Your task to perform on an android device: open wifi settings Image 0: 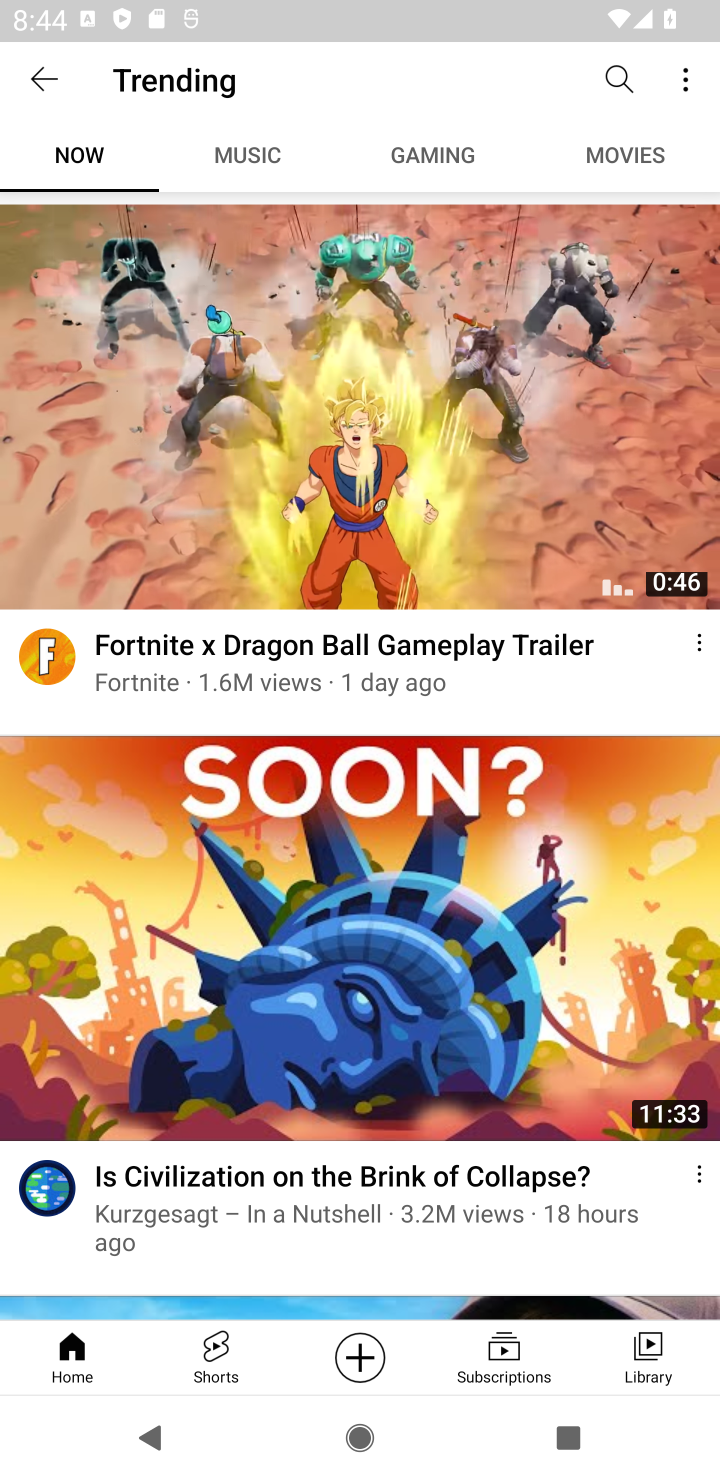
Step 0: press home button
Your task to perform on an android device: open wifi settings Image 1: 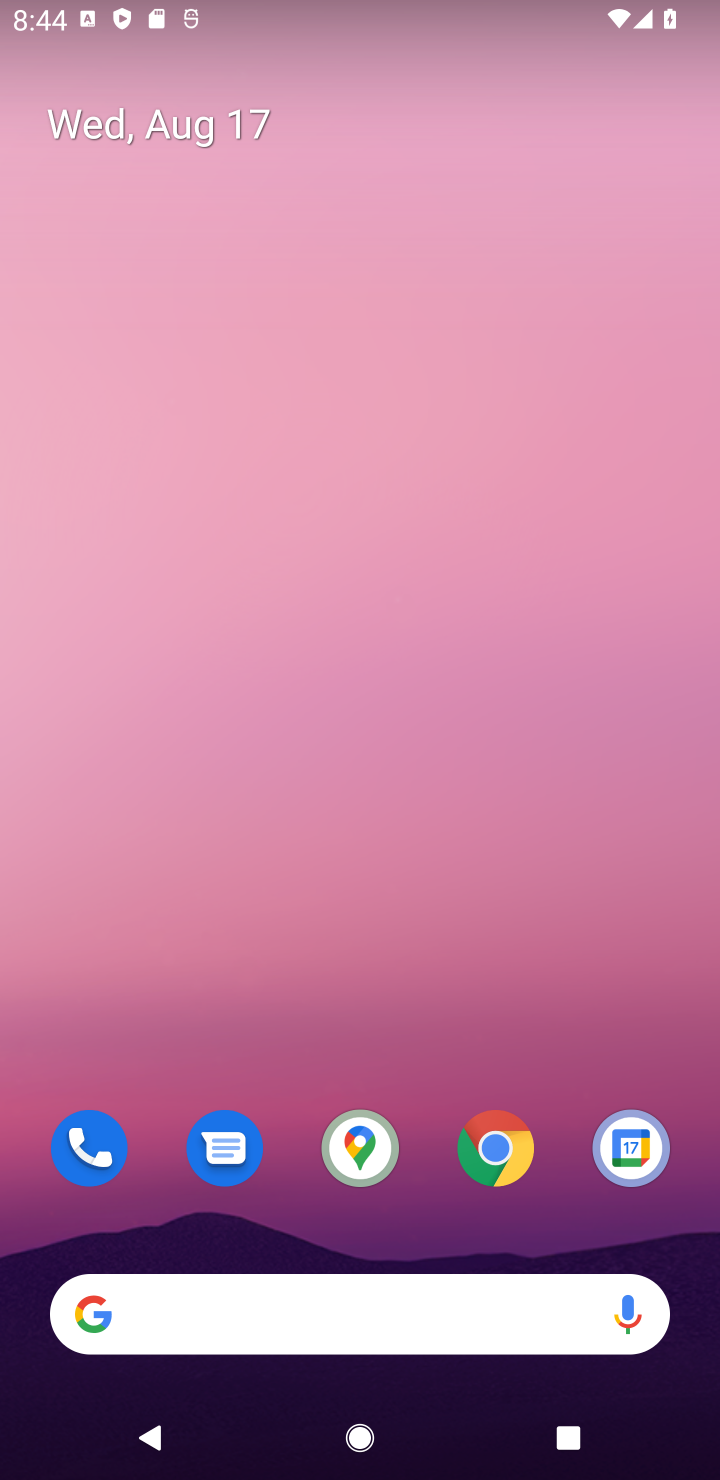
Step 1: drag from (555, 1228) to (475, 77)
Your task to perform on an android device: open wifi settings Image 2: 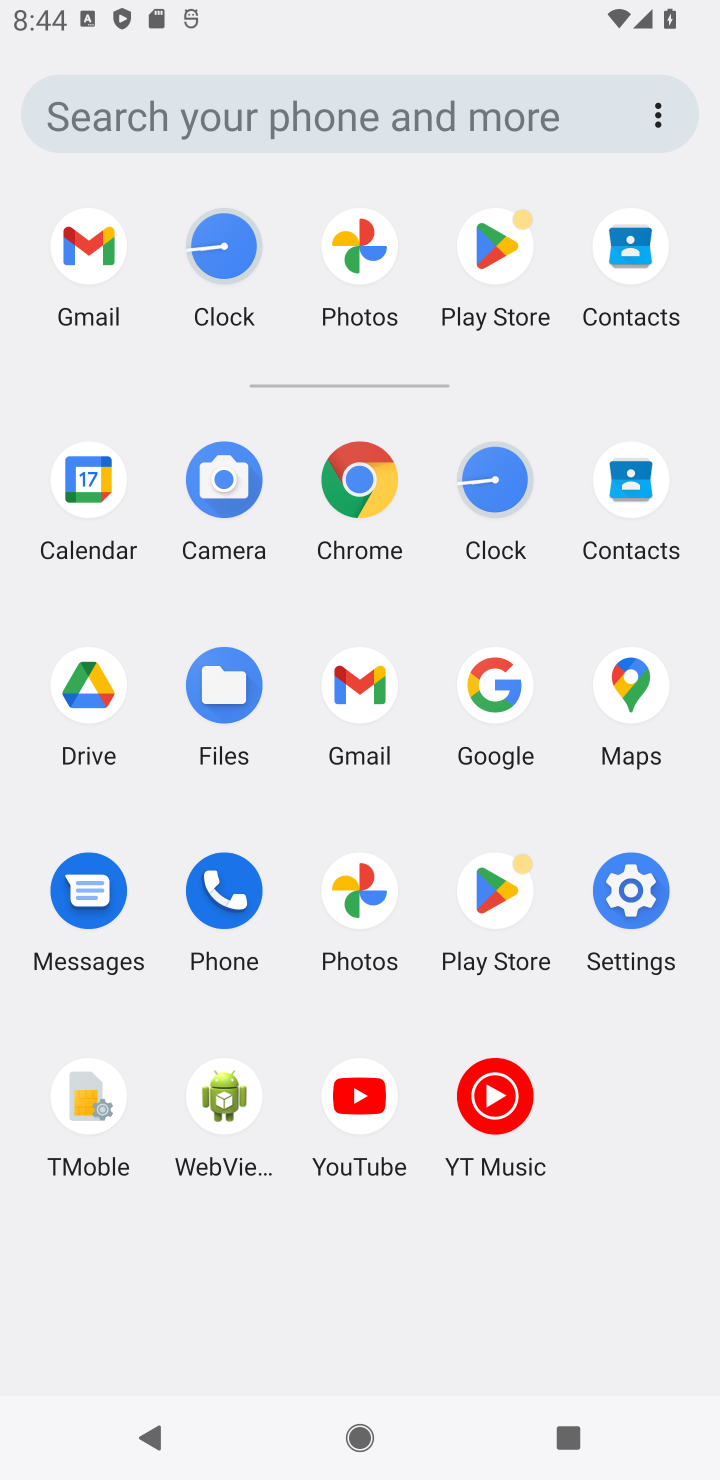
Step 2: click (631, 893)
Your task to perform on an android device: open wifi settings Image 3: 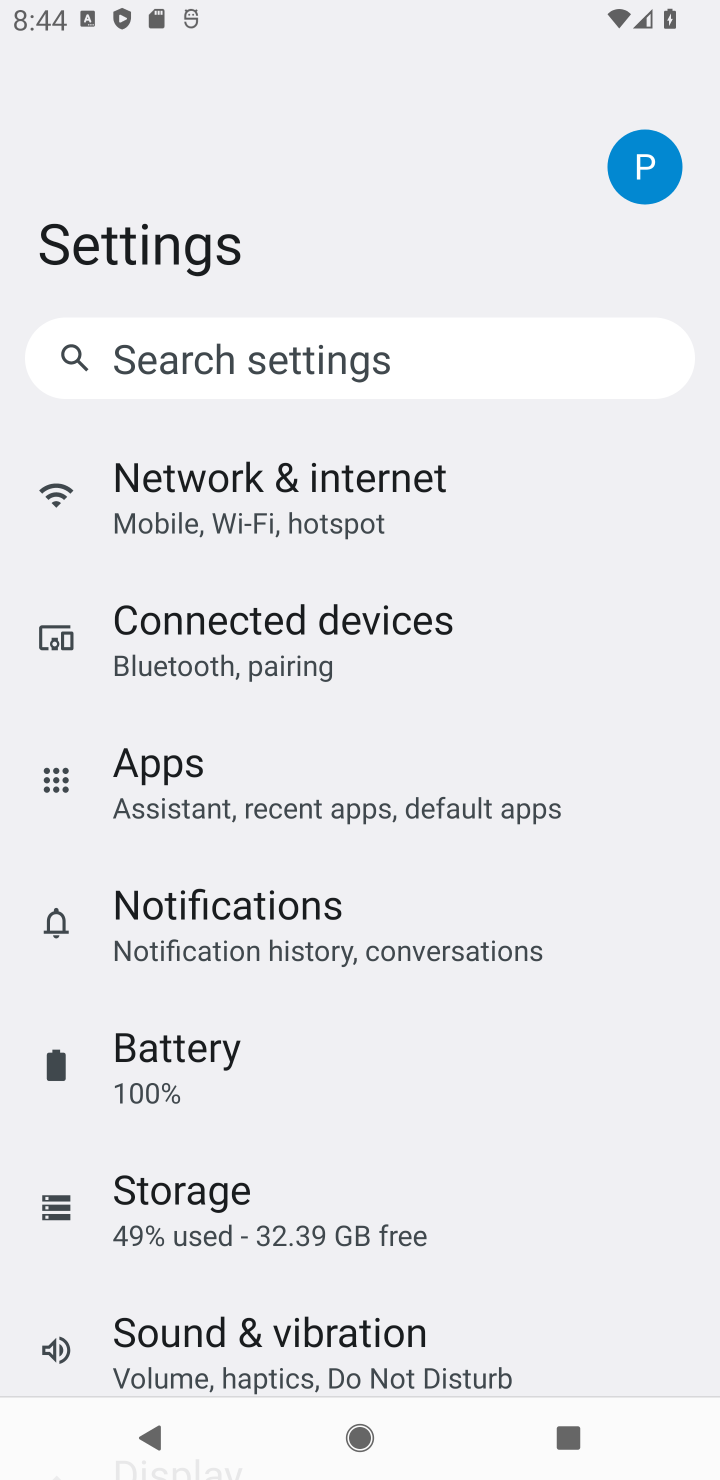
Step 3: click (232, 492)
Your task to perform on an android device: open wifi settings Image 4: 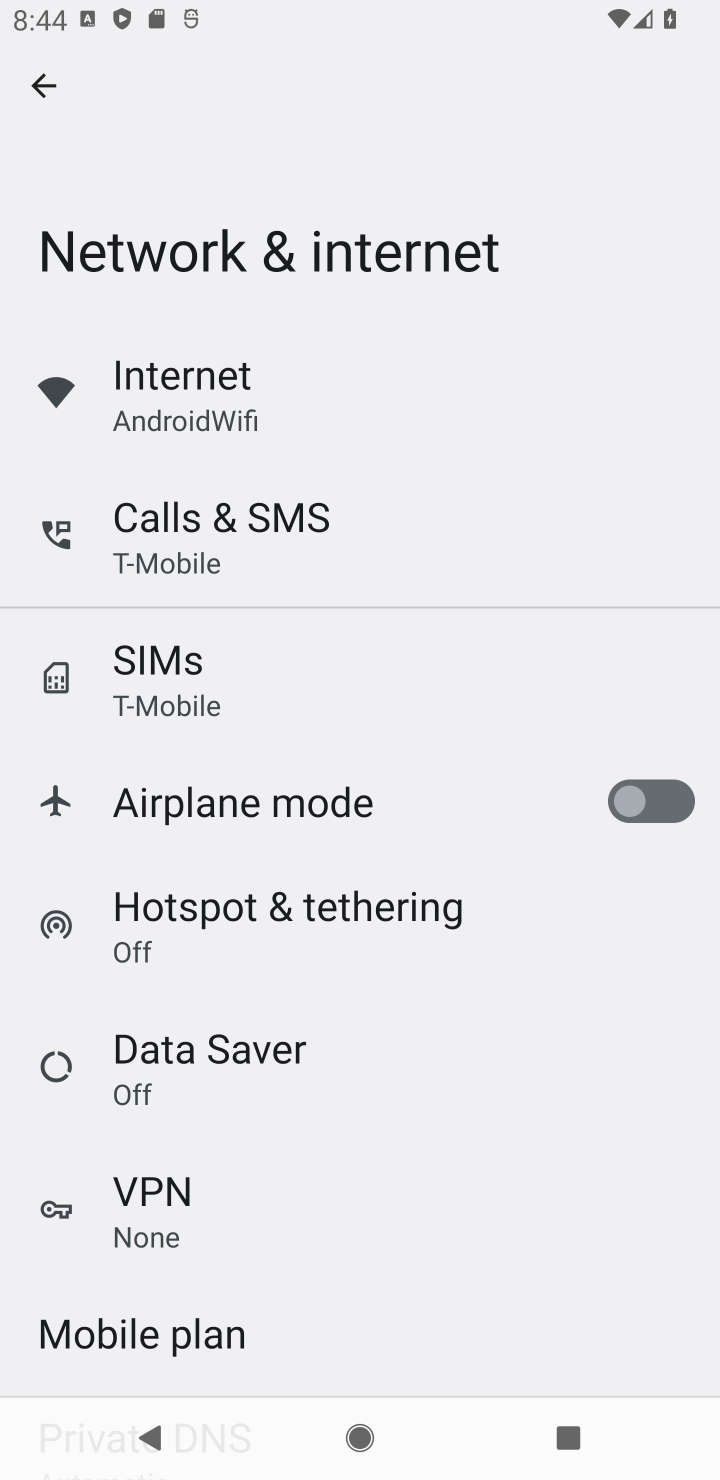
Step 4: click (179, 391)
Your task to perform on an android device: open wifi settings Image 5: 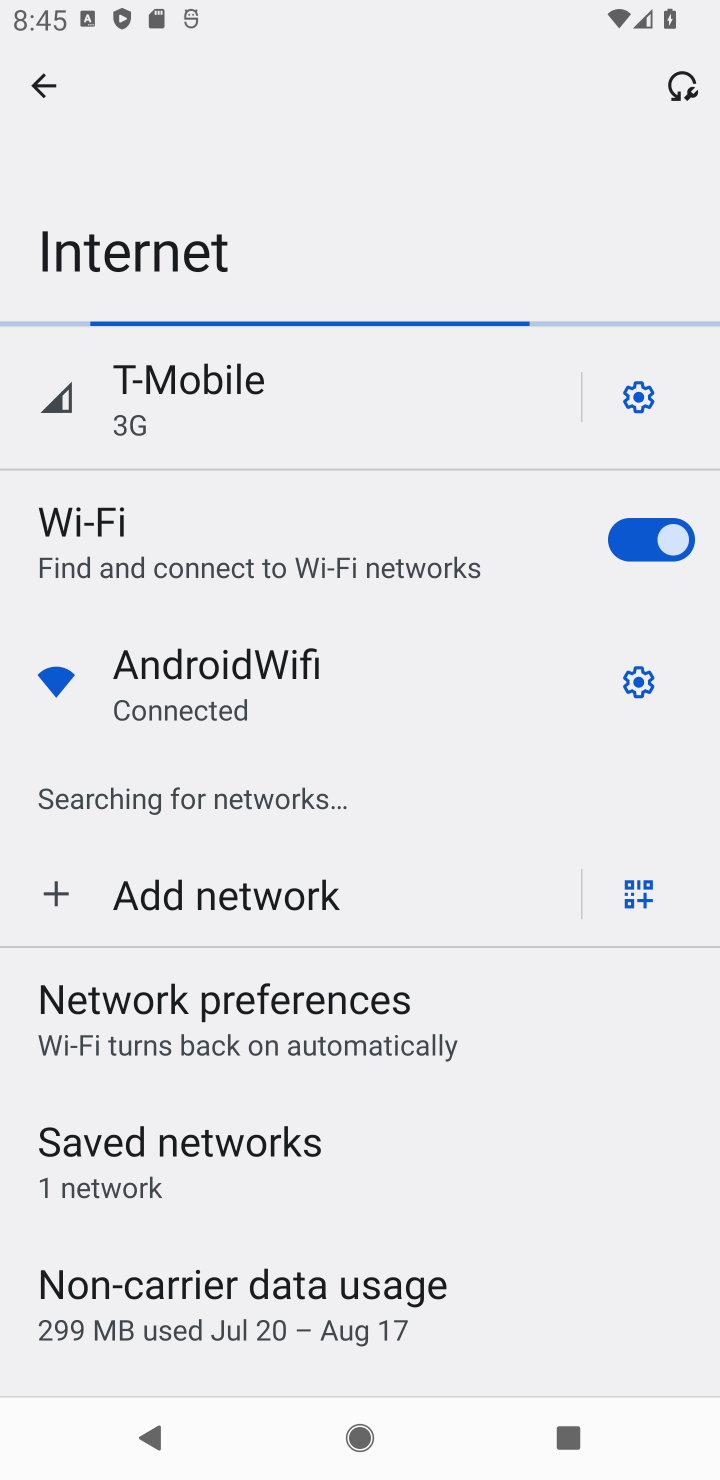
Step 5: click (639, 396)
Your task to perform on an android device: open wifi settings Image 6: 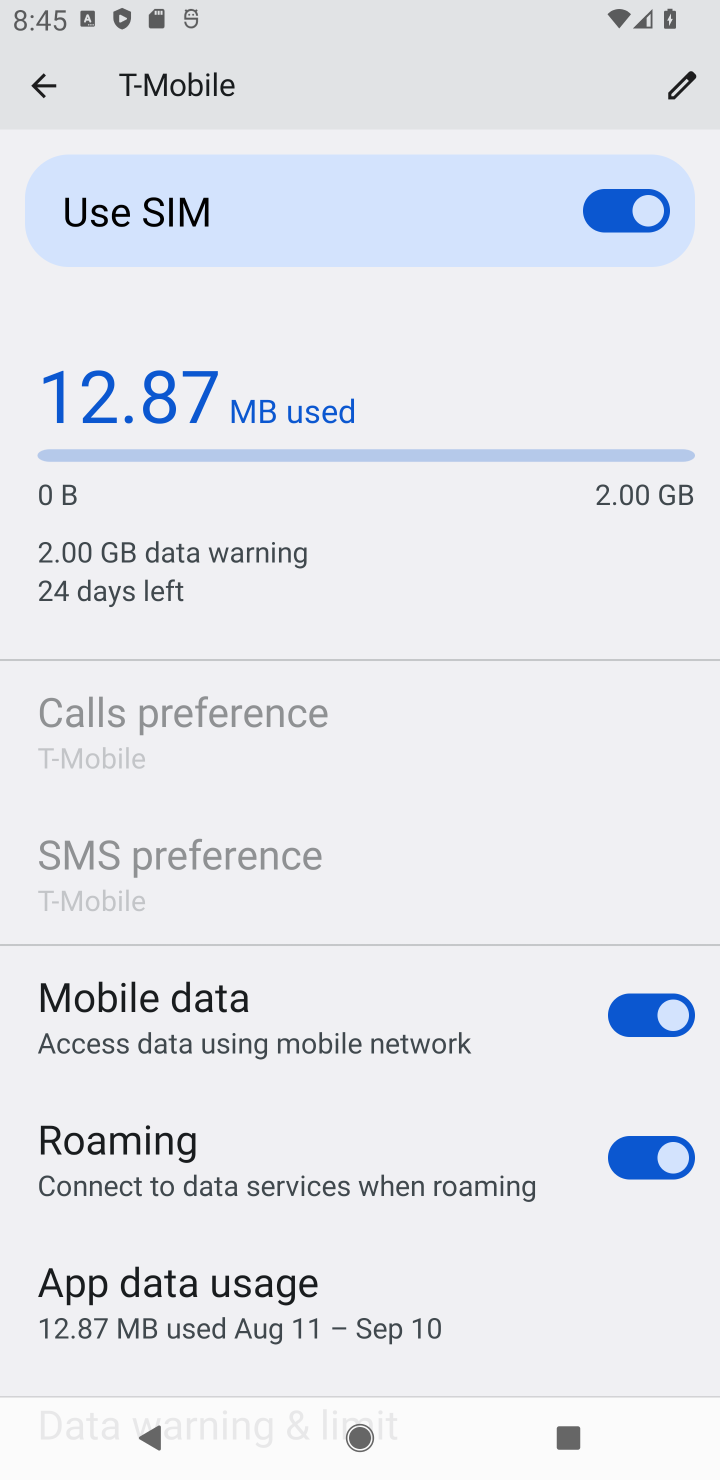
Step 6: task complete